Your task to perform on an android device: delete a single message in the gmail app Image 0: 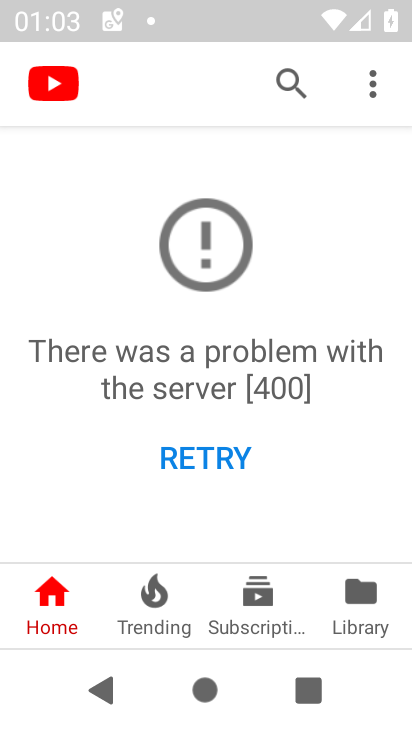
Step 0: press home button
Your task to perform on an android device: delete a single message in the gmail app Image 1: 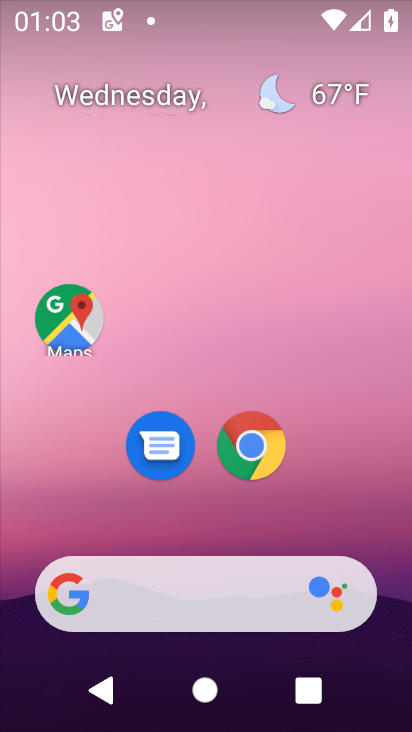
Step 1: drag from (393, 539) to (342, 155)
Your task to perform on an android device: delete a single message in the gmail app Image 2: 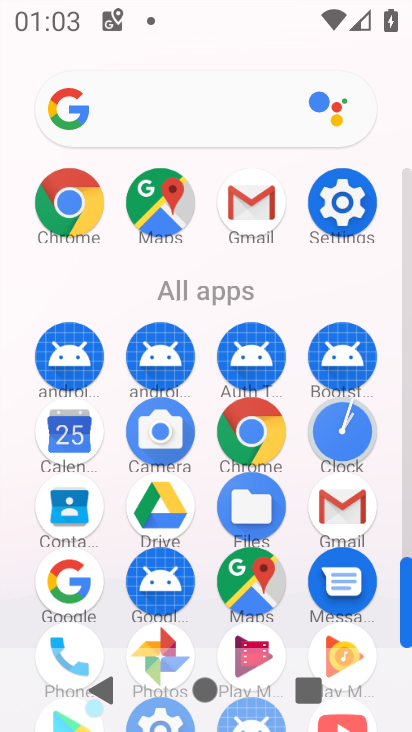
Step 2: click (262, 206)
Your task to perform on an android device: delete a single message in the gmail app Image 3: 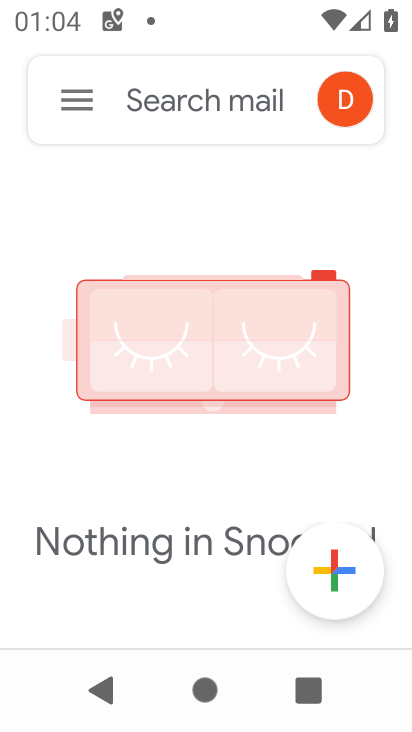
Step 3: click (82, 111)
Your task to perform on an android device: delete a single message in the gmail app Image 4: 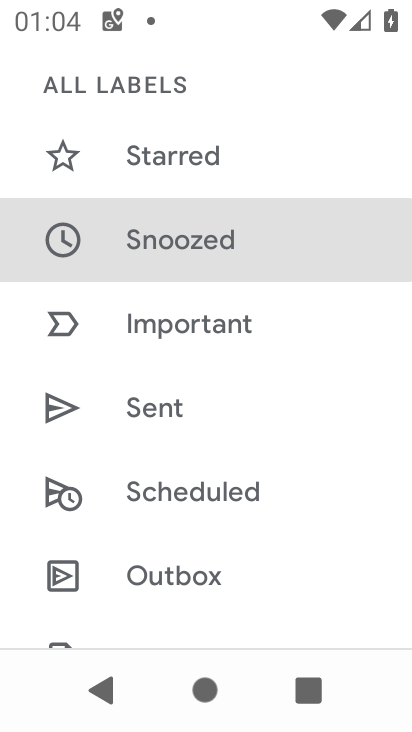
Step 4: drag from (178, 560) to (190, 223)
Your task to perform on an android device: delete a single message in the gmail app Image 5: 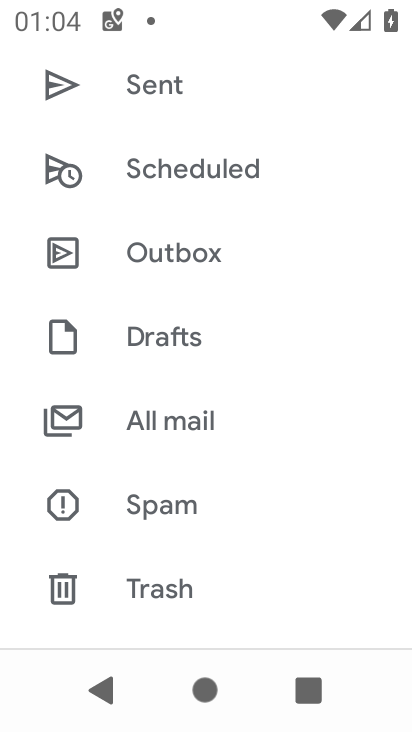
Step 5: click (203, 430)
Your task to perform on an android device: delete a single message in the gmail app Image 6: 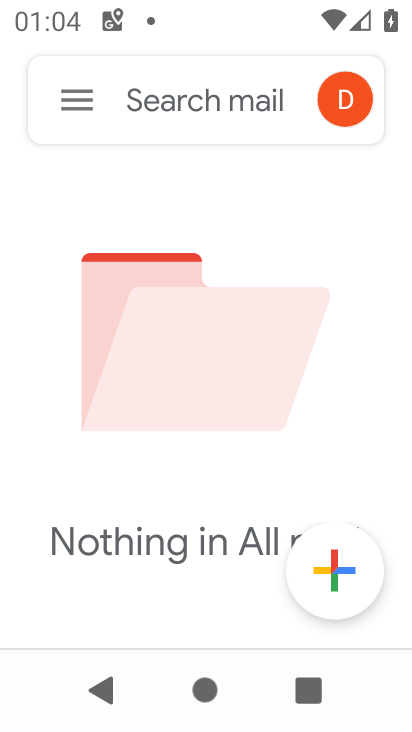
Step 6: task complete